Your task to perform on an android device: Go to eBay Image 0: 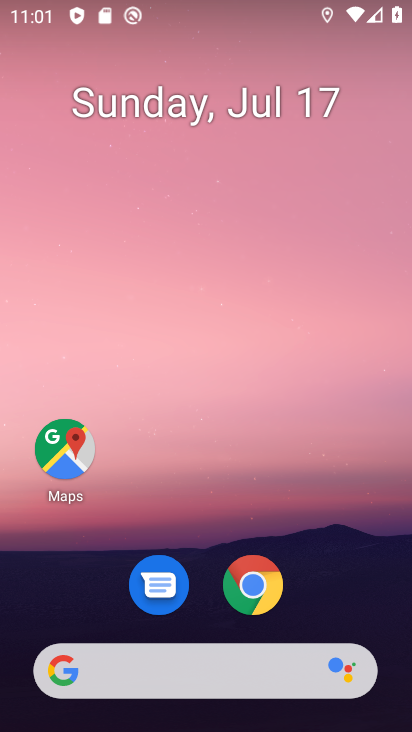
Step 0: drag from (315, 460) to (304, 387)
Your task to perform on an android device: Go to eBay Image 1: 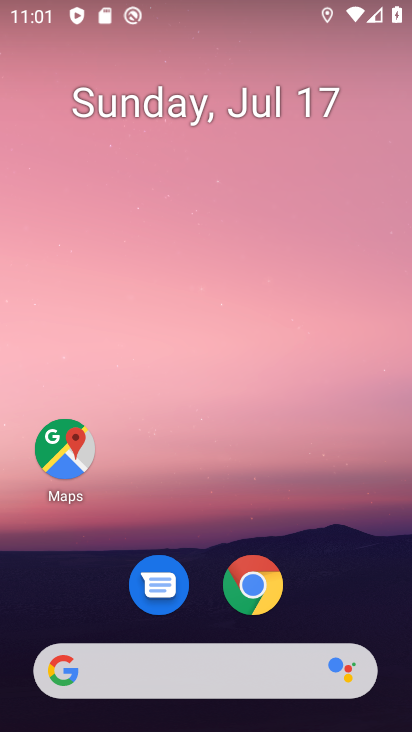
Step 1: click (180, 657)
Your task to perform on an android device: Go to eBay Image 2: 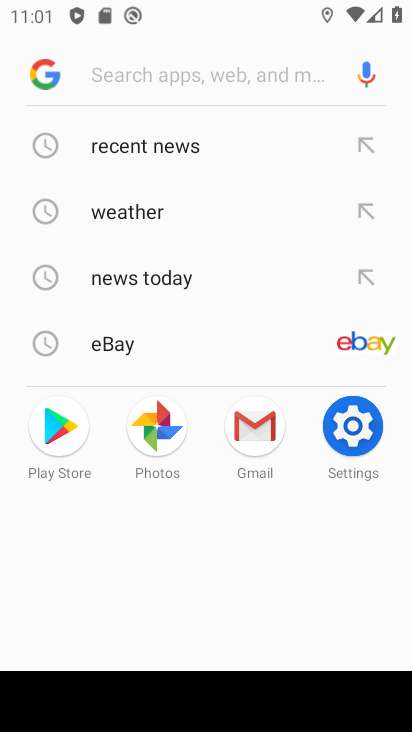
Step 2: type "ebay"
Your task to perform on an android device: Go to eBay Image 3: 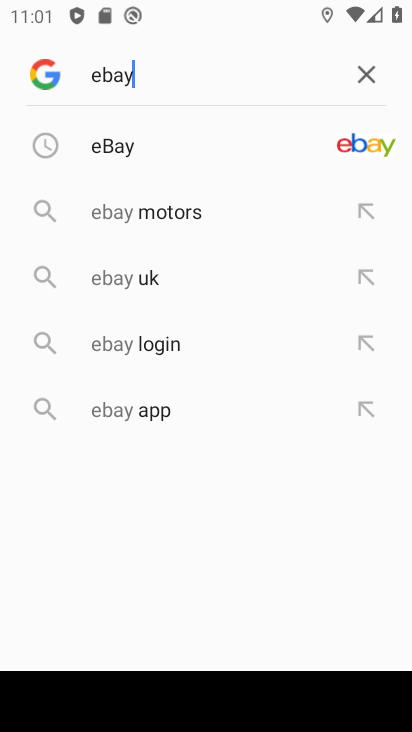
Step 3: click (355, 141)
Your task to perform on an android device: Go to eBay Image 4: 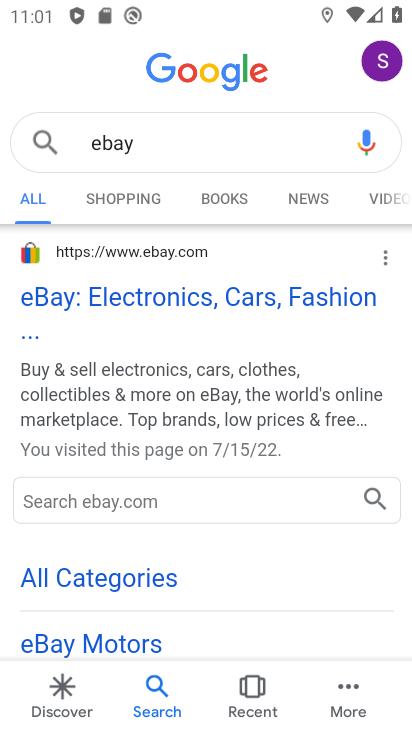
Step 4: click (58, 300)
Your task to perform on an android device: Go to eBay Image 5: 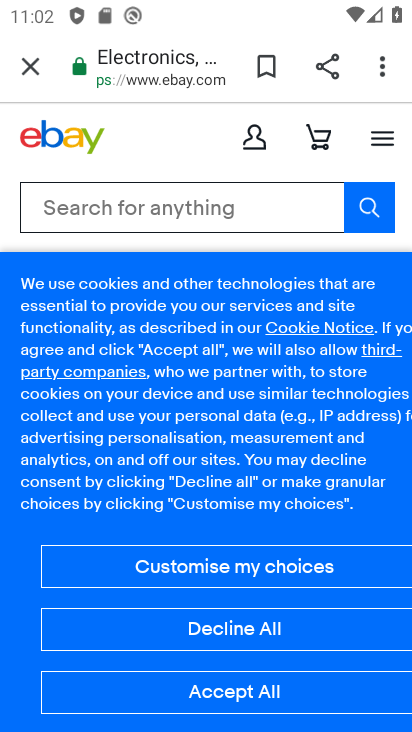
Step 5: task complete